Your task to perform on an android device: What is the recent news? Image 0: 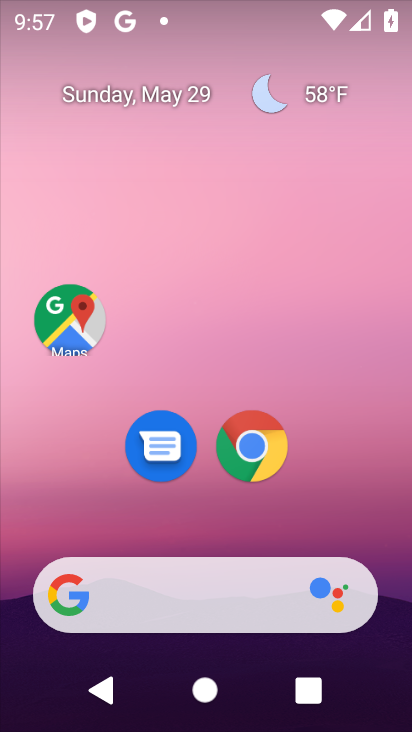
Step 0: drag from (347, 447) to (198, 11)
Your task to perform on an android device: What is the recent news? Image 1: 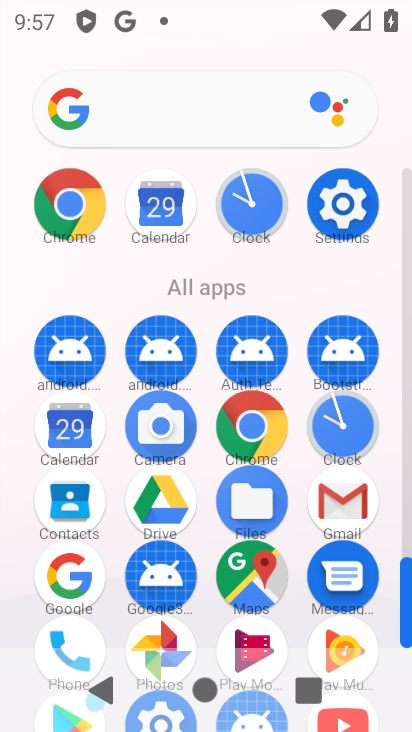
Step 1: drag from (10, 556) to (23, 209)
Your task to perform on an android device: What is the recent news? Image 2: 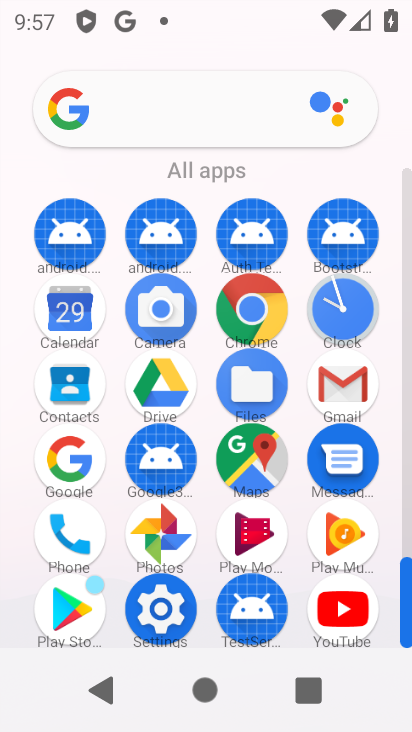
Step 2: click (248, 303)
Your task to perform on an android device: What is the recent news? Image 3: 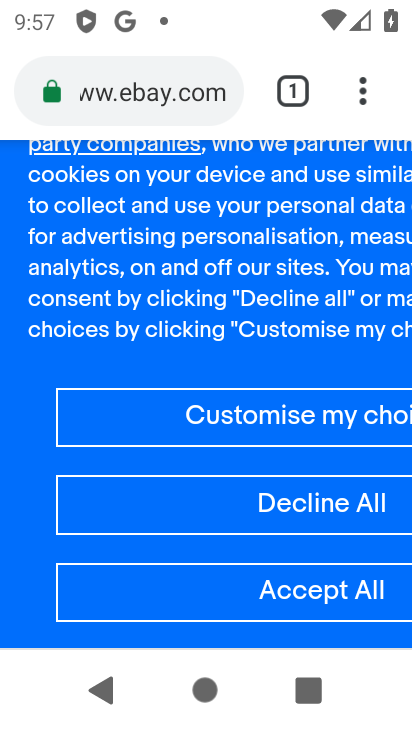
Step 3: click (145, 63)
Your task to perform on an android device: What is the recent news? Image 4: 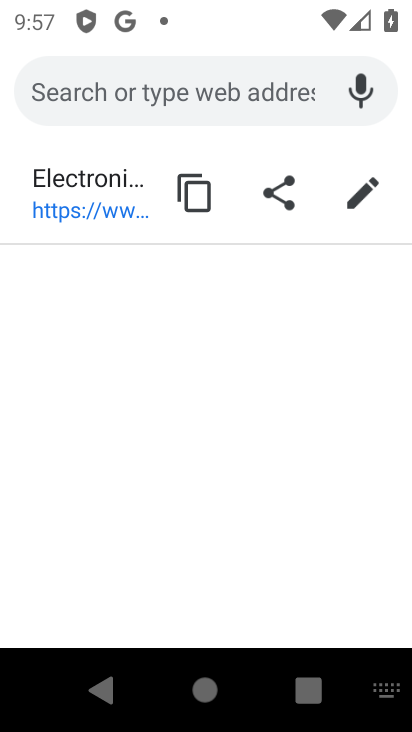
Step 4: type "What is the recent news?"
Your task to perform on an android device: What is the recent news? Image 5: 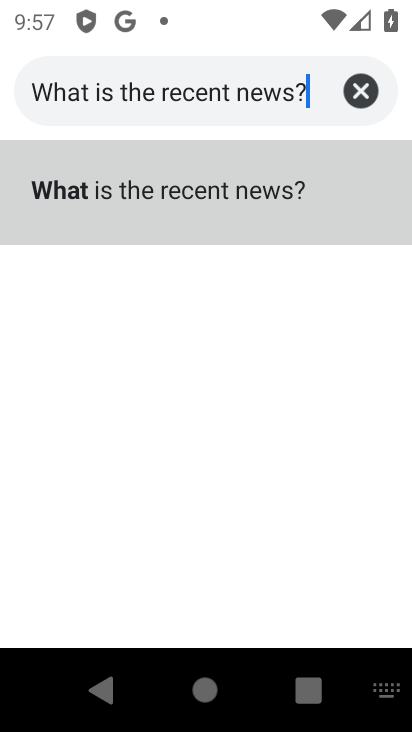
Step 5: type ""
Your task to perform on an android device: What is the recent news? Image 6: 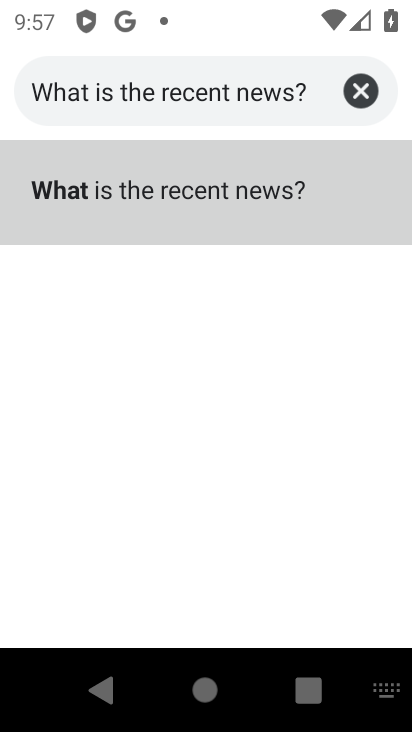
Step 6: click (147, 169)
Your task to perform on an android device: What is the recent news? Image 7: 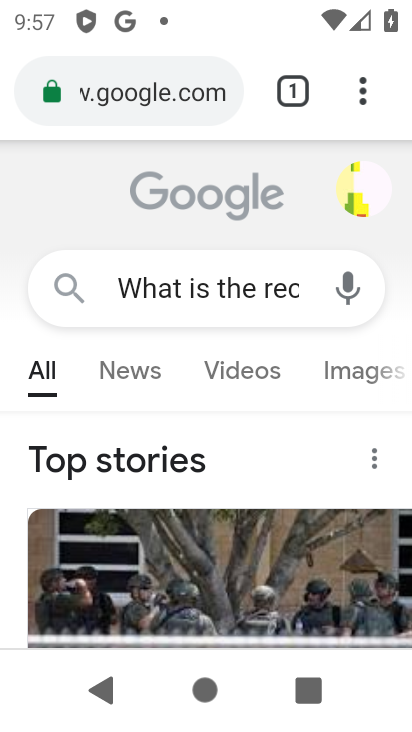
Step 7: task complete